Your task to perform on an android device: What is the news today? Image 0: 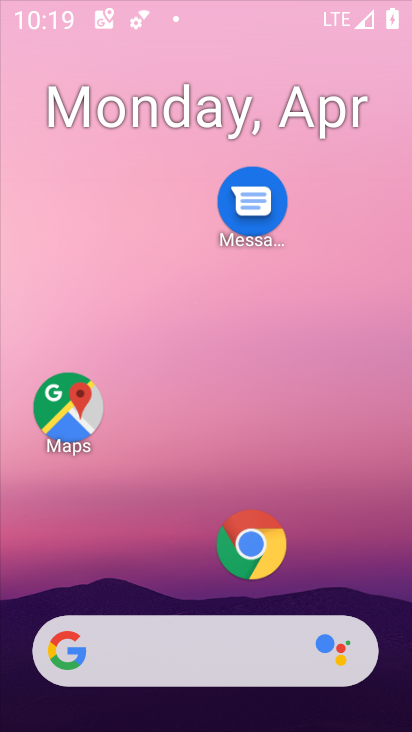
Step 0: drag from (181, 582) to (144, 32)
Your task to perform on an android device: What is the news today? Image 1: 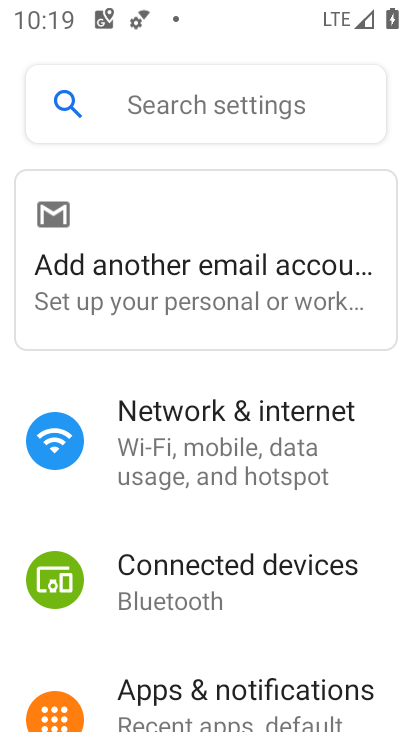
Step 1: task complete